Your task to perform on an android device: clear history in the chrome app Image 0: 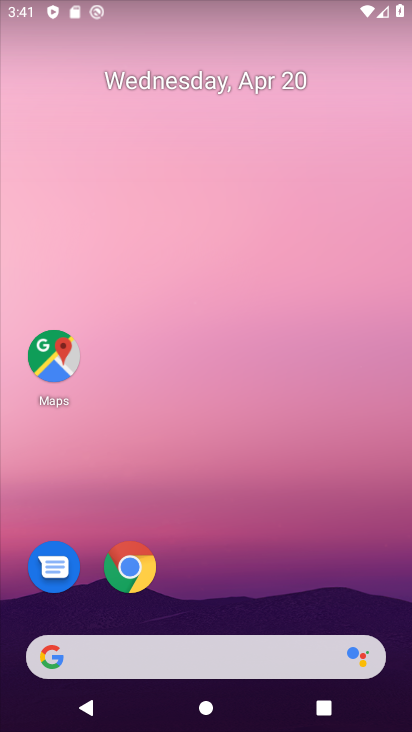
Step 0: click (140, 563)
Your task to perform on an android device: clear history in the chrome app Image 1: 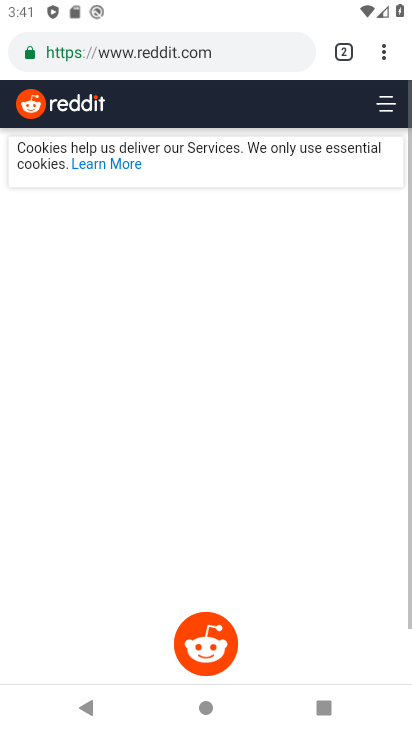
Step 1: click (384, 48)
Your task to perform on an android device: clear history in the chrome app Image 2: 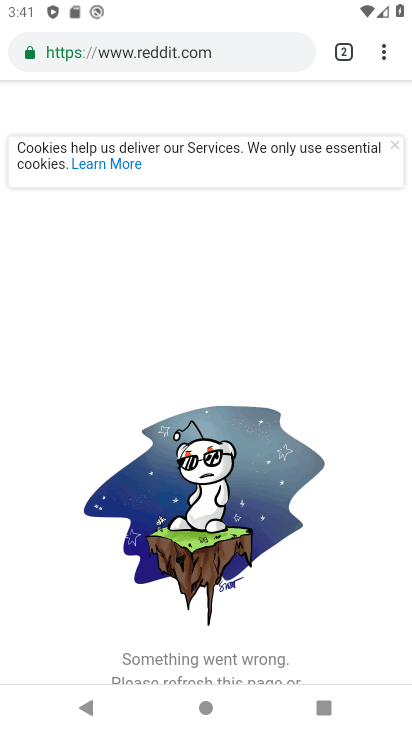
Step 2: drag from (384, 48) to (259, 358)
Your task to perform on an android device: clear history in the chrome app Image 3: 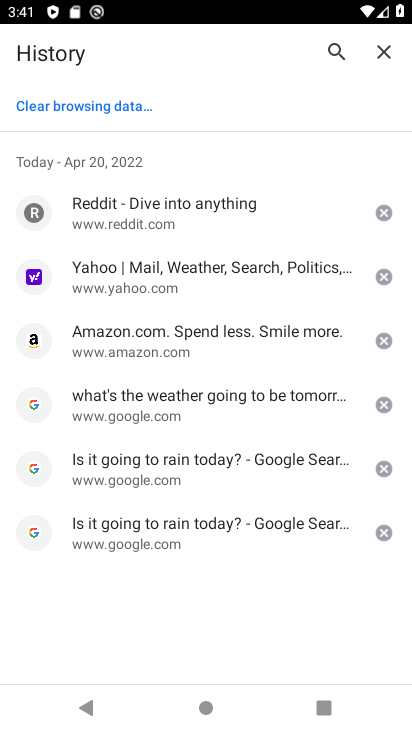
Step 3: click (74, 103)
Your task to perform on an android device: clear history in the chrome app Image 4: 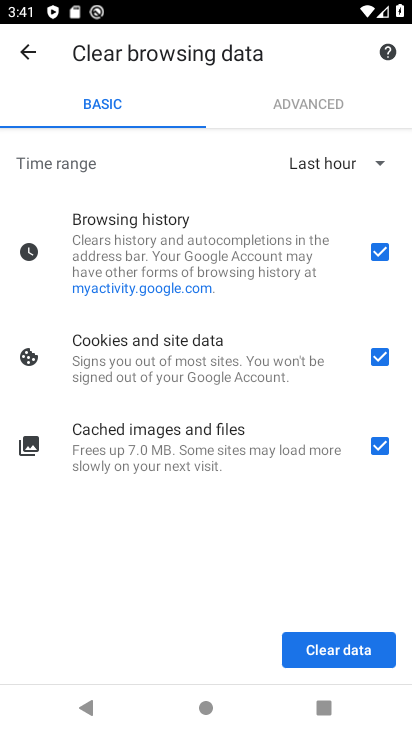
Step 4: click (323, 643)
Your task to perform on an android device: clear history in the chrome app Image 5: 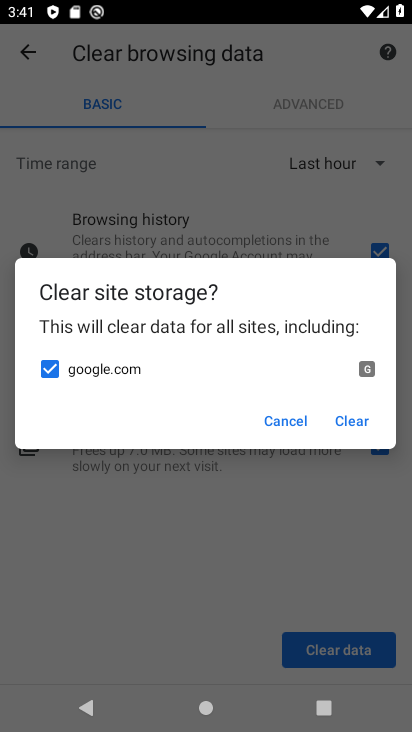
Step 5: click (355, 417)
Your task to perform on an android device: clear history in the chrome app Image 6: 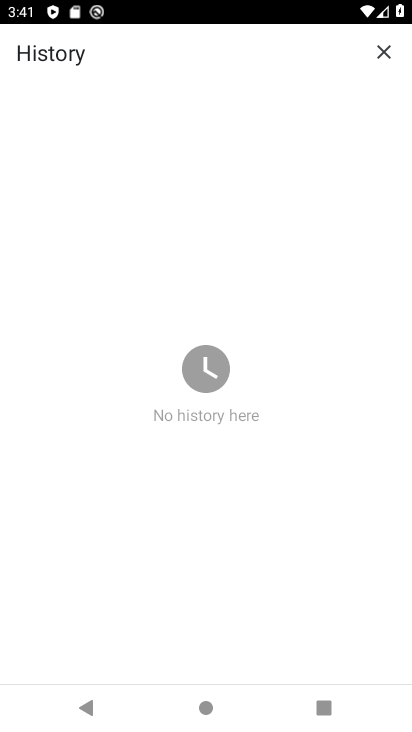
Step 6: task complete